Your task to perform on an android device: Go to Yahoo.com Image 0: 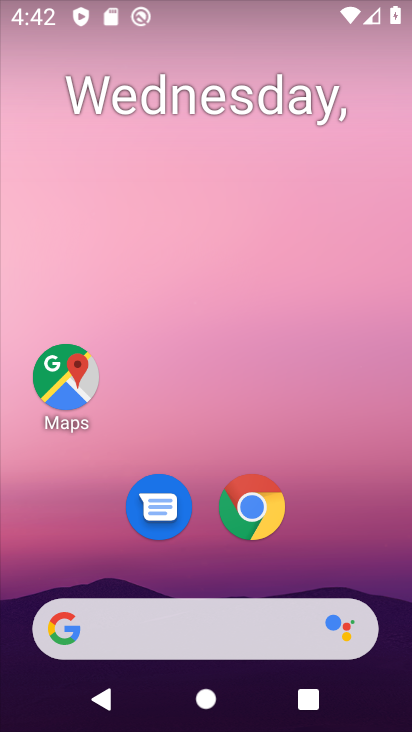
Step 0: click (249, 518)
Your task to perform on an android device: Go to Yahoo.com Image 1: 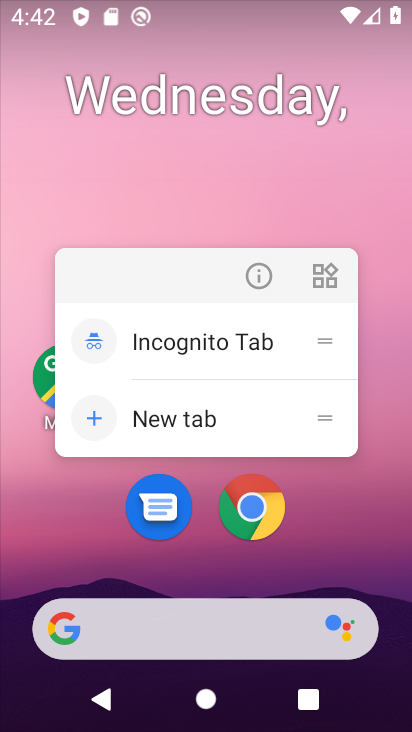
Step 1: click (251, 508)
Your task to perform on an android device: Go to Yahoo.com Image 2: 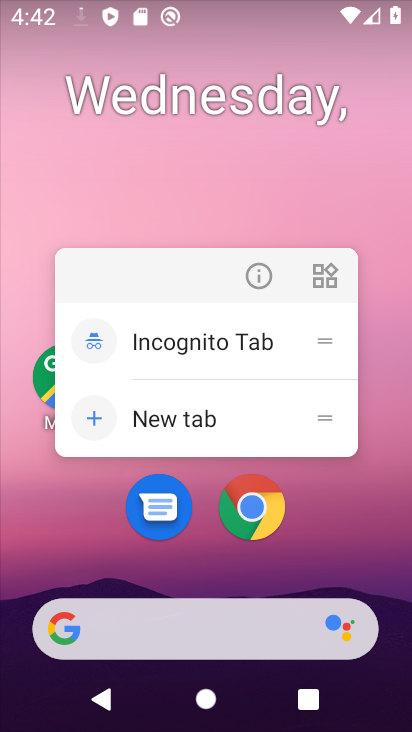
Step 2: click (253, 512)
Your task to perform on an android device: Go to Yahoo.com Image 3: 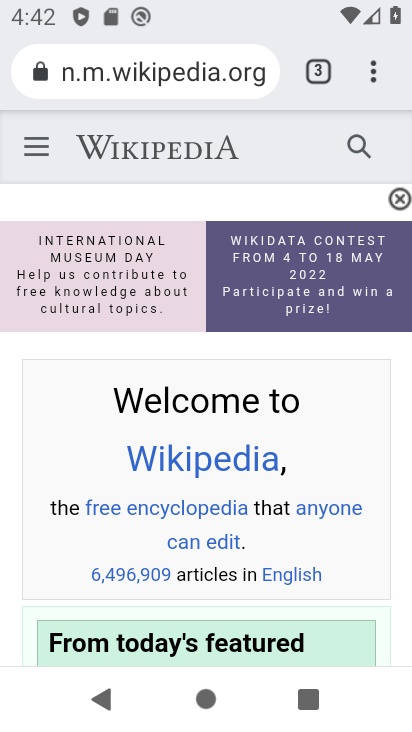
Step 3: drag from (390, 74) to (329, 223)
Your task to perform on an android device: Go to Yahoo.com Image 4: 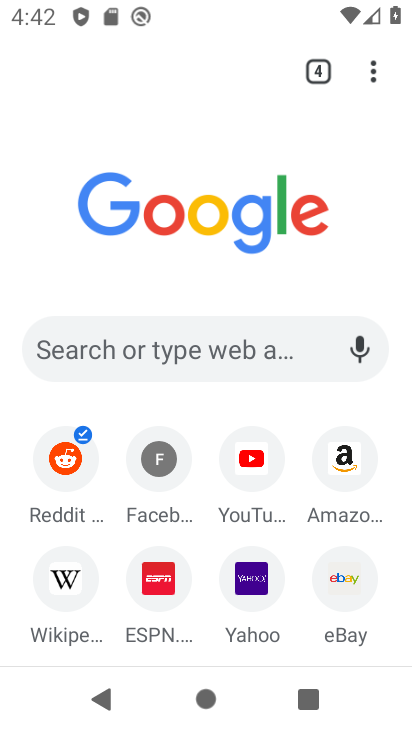
Step 4: click (252, 602)
Your task to perform on an android device: Go to Yahoo.com Image 5: 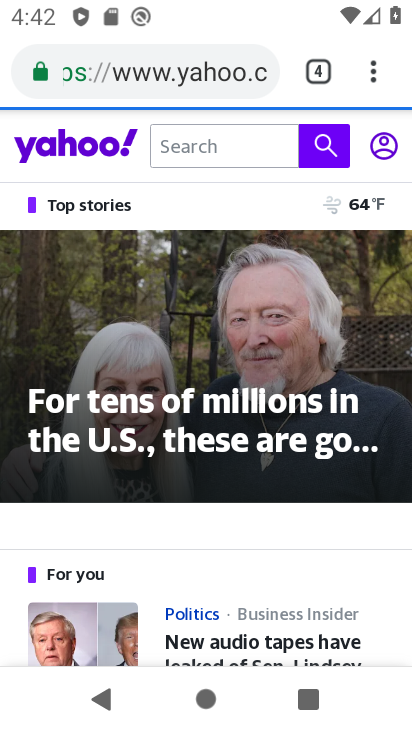
Step 5: task complete